Your task to perform on an android device: open chrome privacy settings Image 0: 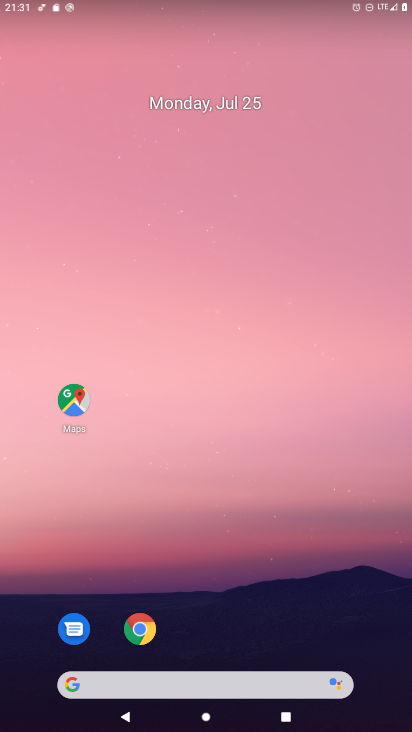
Step 0: click (139, 628)
Your task to perform on an android device: open chrome privacy settings Image 1: 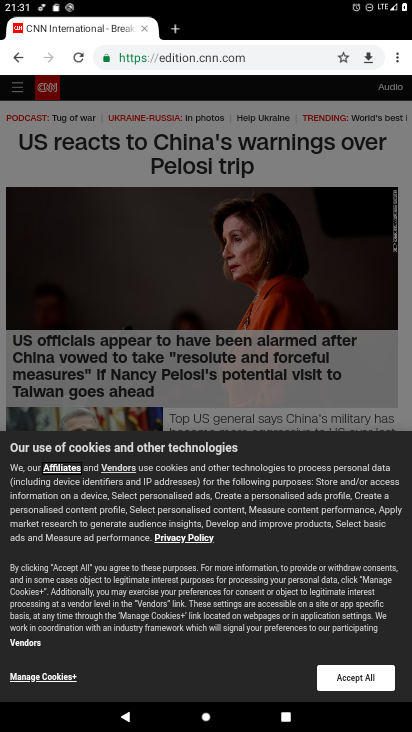
Step 1: click (396, 56)
Your task to perform on an android device: open chrome privacy settings Image 2: 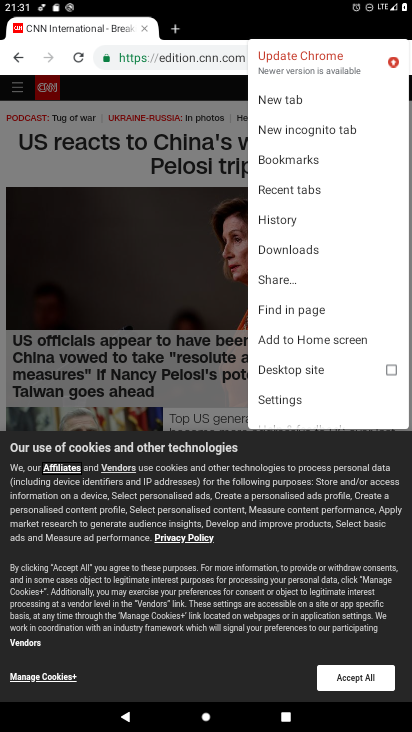
Step 2: click (295, 401)
Your task to perform on an android device: open chrome privacy settings Image 3: 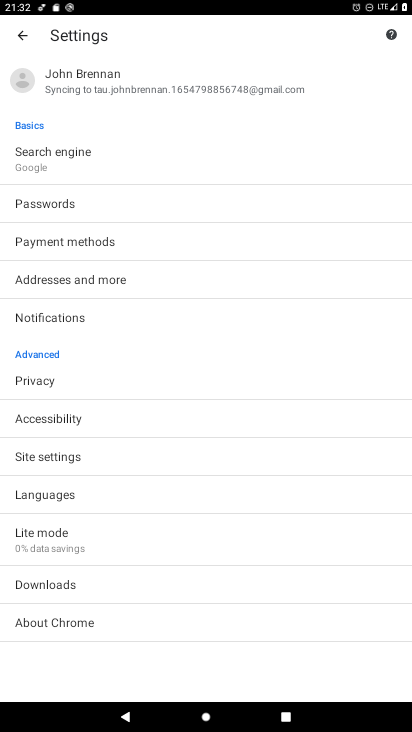
Step 3: click (39, 383)
Your task to perform on an android device: open chrome privacy settings Image 4: 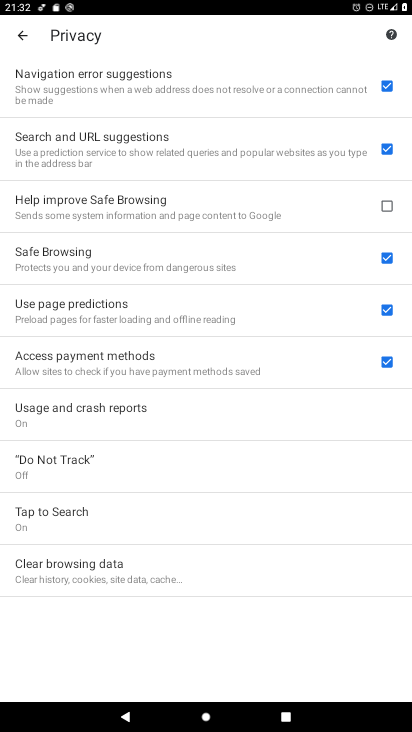
Step 4: task complete